Your task to perform on an android device: Open Google Chrome and open the bookmarks view Image 0: 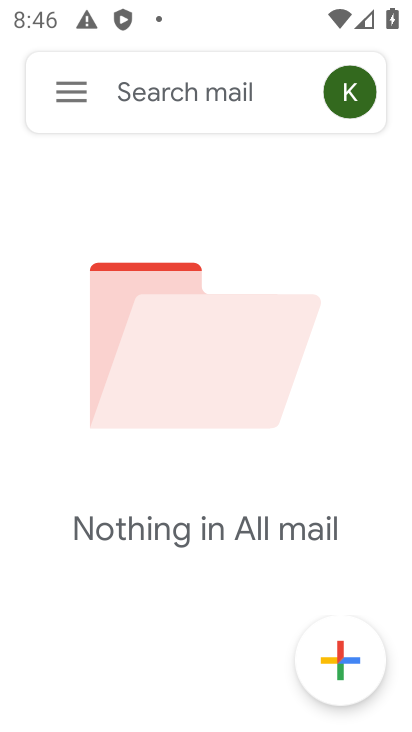
Step 0: click (400, 367)
Your task to perform on an android device: Open Google Chrome and open the bookmarks view Image 1: 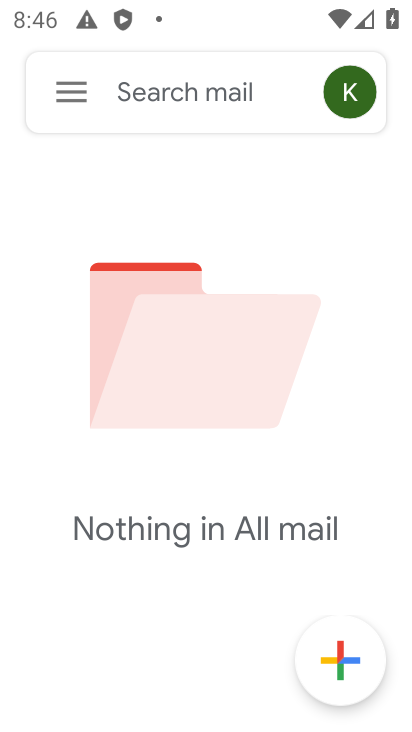
Step 1: press home button
Your task to perform on an android device: Open Google Chrome and open the bookmarks view Image 2: 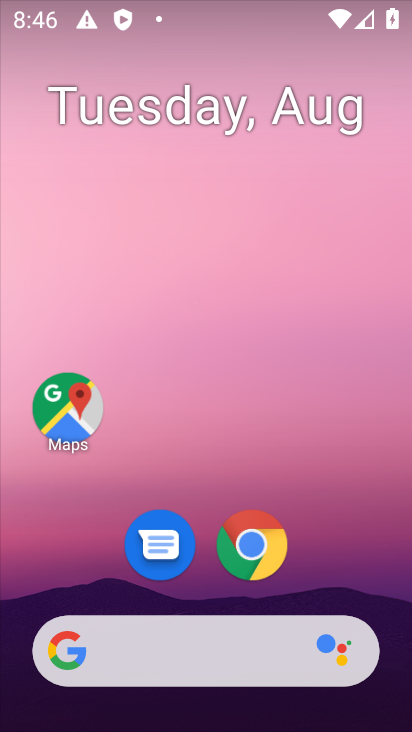
Step 2: click (243, 546)
Your task to perform on an android device: Open Google Chrome and open the bookmarks view Image 3: 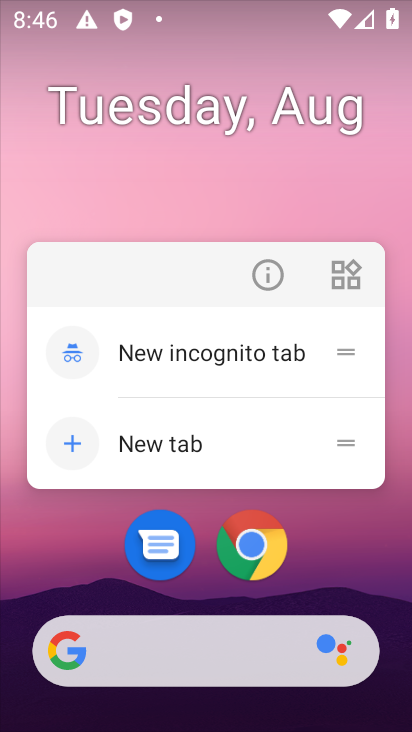
Step 3: click (243, 546)
Your task to perform on an android device: Open Google Chrome and open the bookmarks view Image 4: 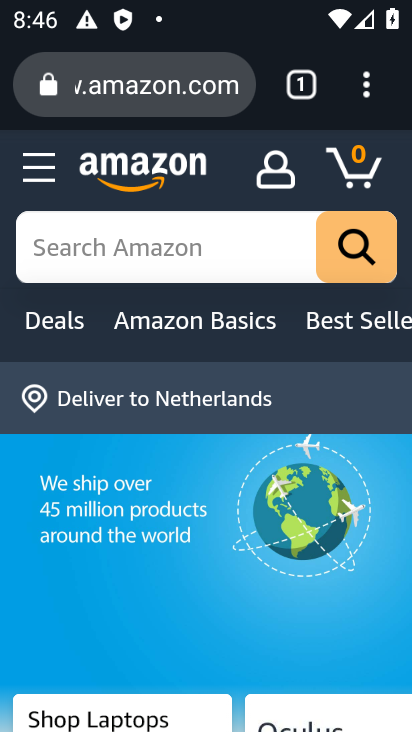
Step 4: click (374, 90)
Your task to perform on an android device: Open Google Chrome and open the bookmarks view Image 5: 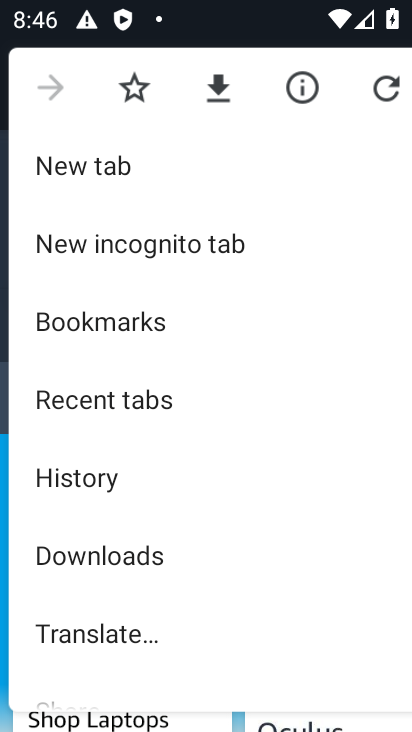
Step 5: drag from (40, 459) to (200, 160)
Your task to perform on an android device: Open Google Chrome and open the bookmarks view Image 6: 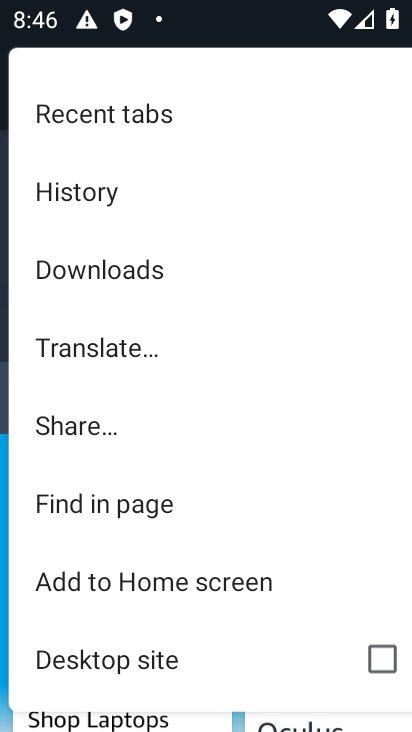
Step 6: drag from (124, 314) to (101, 643)
Your task to perform on an android device: Open Google Chrome and open the bookmarks view Image 7: 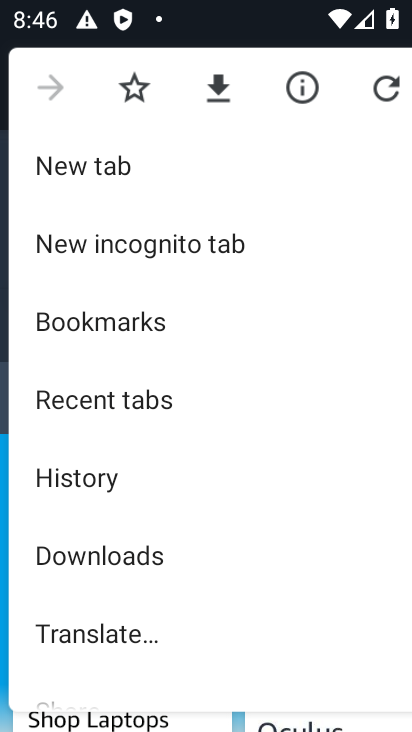
Step 7: click (94, 329)
Your task to perform on an android device: Open Google Chrome and open the bookmarks view Image 8: 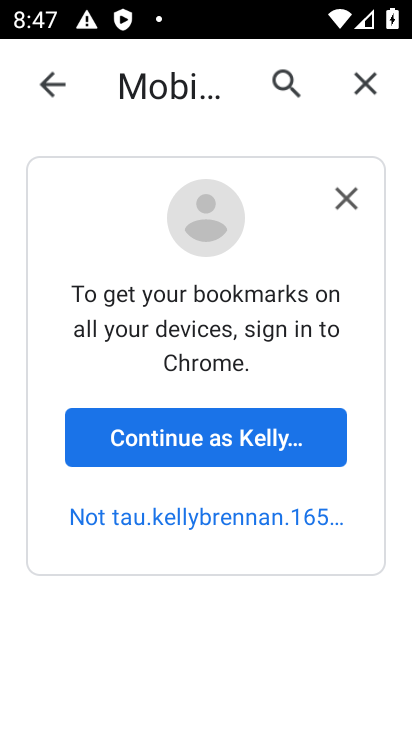
Step 8: click (344, 205)
Your task to perform on an android device: Open Google Chrome and open the bookmarks view Image 9: 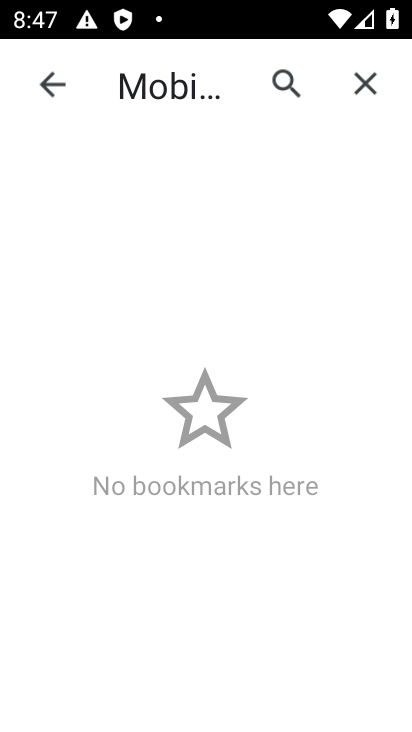
Step 9: task complete